Your task to perform on an android device: Turn off the flashlight Image 0: 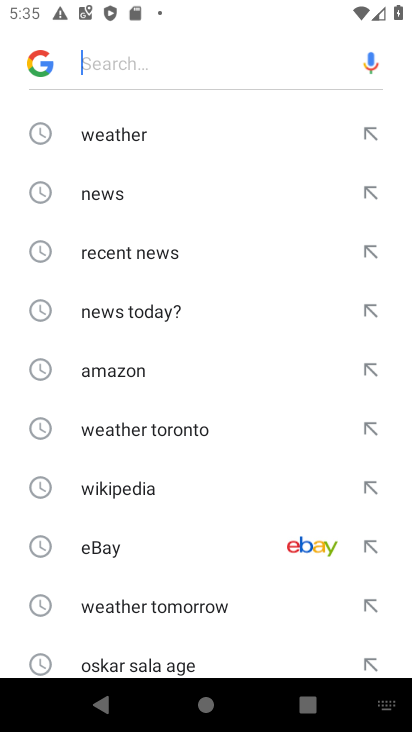
Step 0: press back button
Your task to perform on an android device: Turn off the flashlight Image 1: 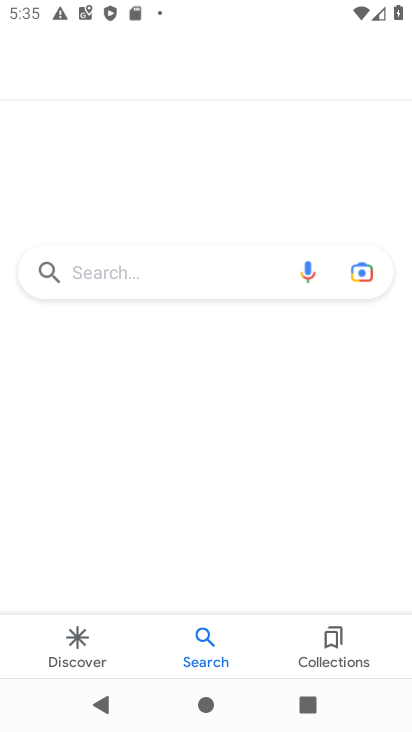
Step 1: task complete